Your task to perform on an android device: turn on the 12-hour format for clock Image 0: 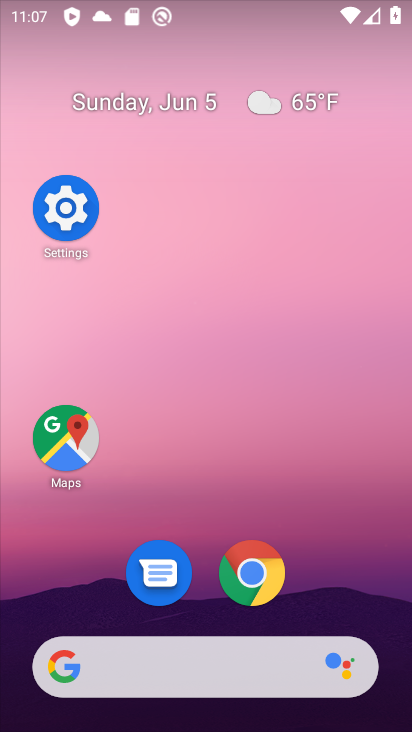
Step 0: drag from (328, 587) to (284, 104)
Your task to perform on an android device: turn on the 12-hour format for clock Image 1: 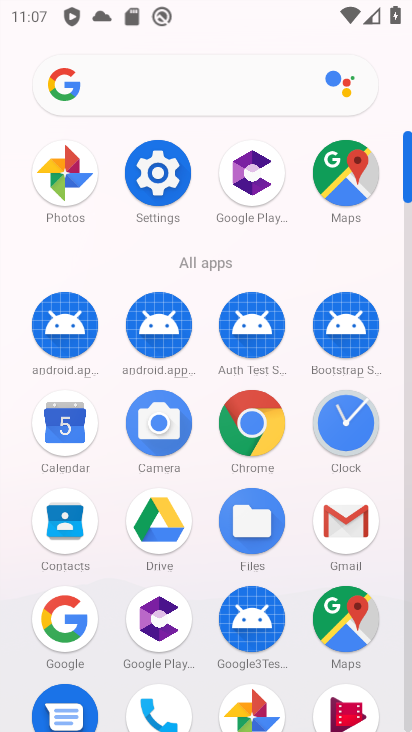
Step 1: click (356, 411)
Your task to perform on an android device: turn on the 12-hour format for clock Image 2: 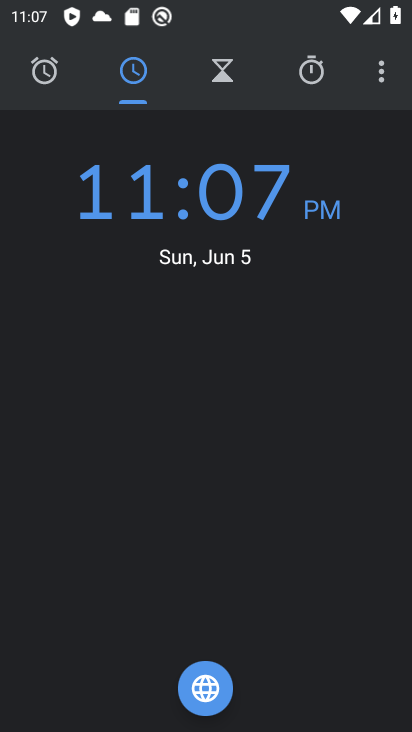
Step 2: click (374, 71)
Your task to perform on an android device: turn on the 12-hour format for clock Image 3: 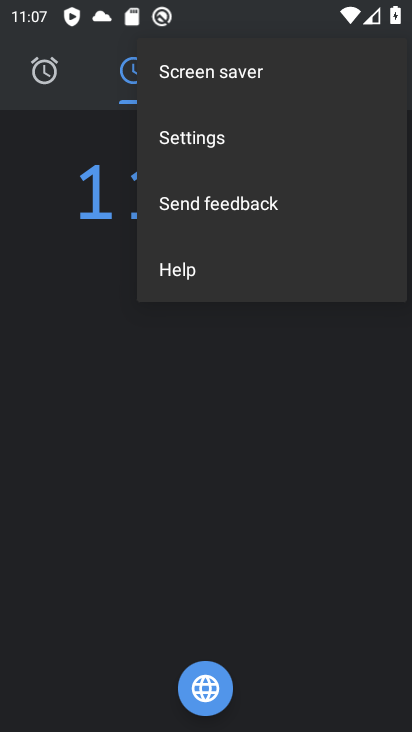
Step 3: click (218, 144)
Your task to perform on an android device: turn on the 12-hour format for clock Image 4: 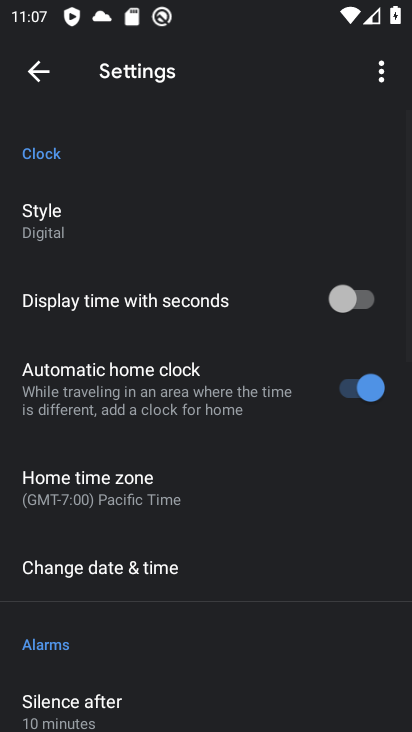
Step 4: click (149, 569)
Your task to perform on an android device: turn on the 12-hour format for clock Image 5: 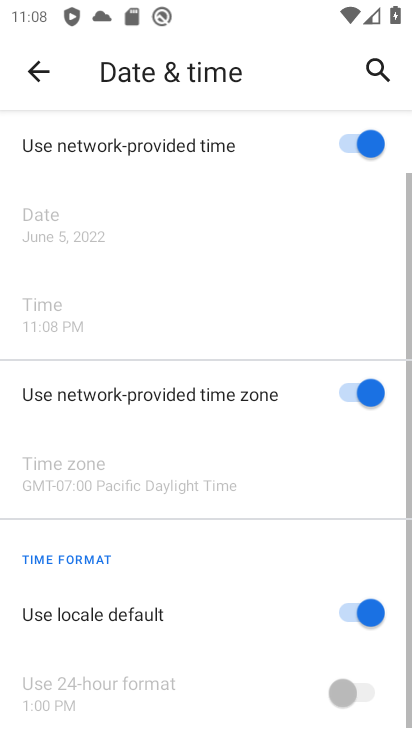
Step 5: task complete